Your task to perform on an android device: check storage Image 0: 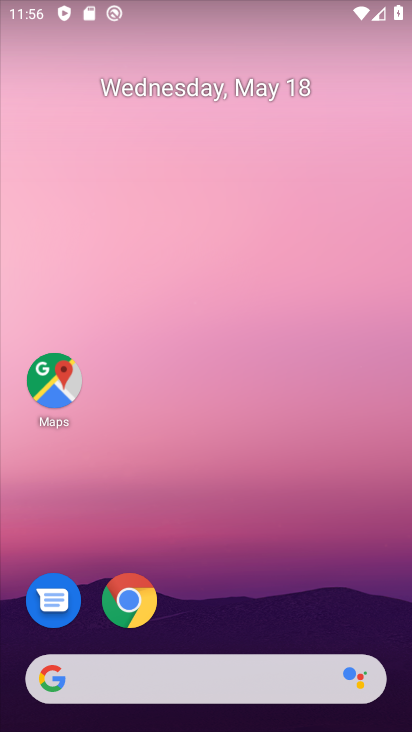
Step 0: drag from (293, 522) to (197, 20)
Your task to perform on an android device: check storage Image 1: 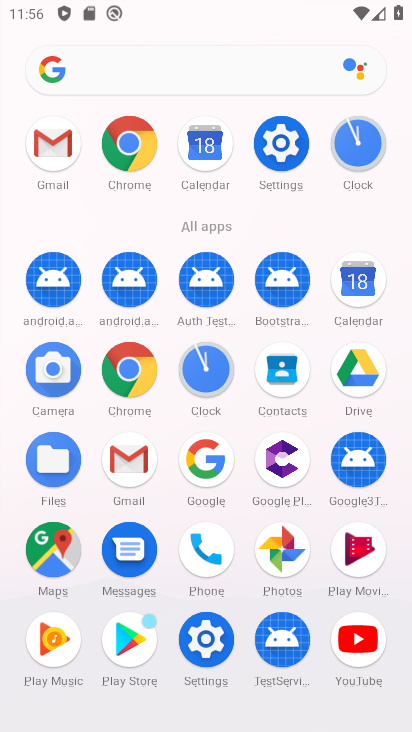
Step 1: click (281, 164)
Your task to perform on an android device: check storage Image 2: 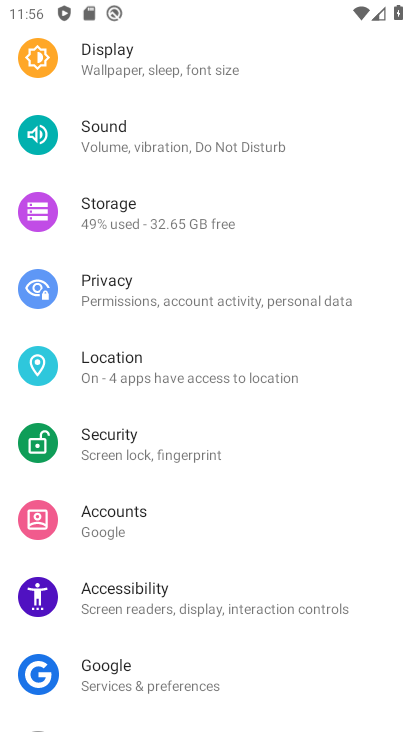
Step 2: click (140, 212)
Your task to perform on an android device: check storage Image 3: 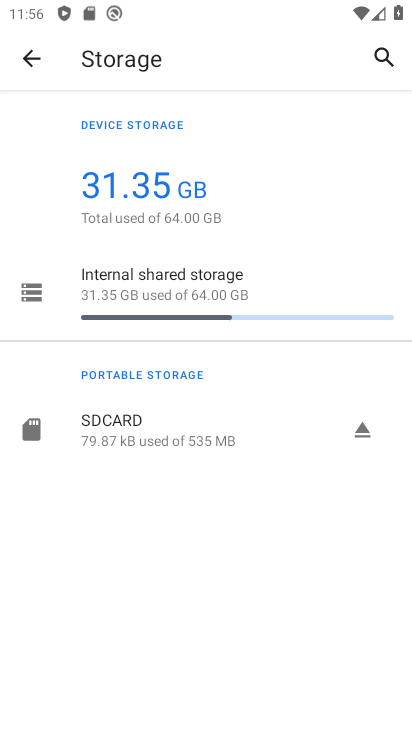
Step 3: task complete